Your task to perform on an android device: Open maps Image 0: 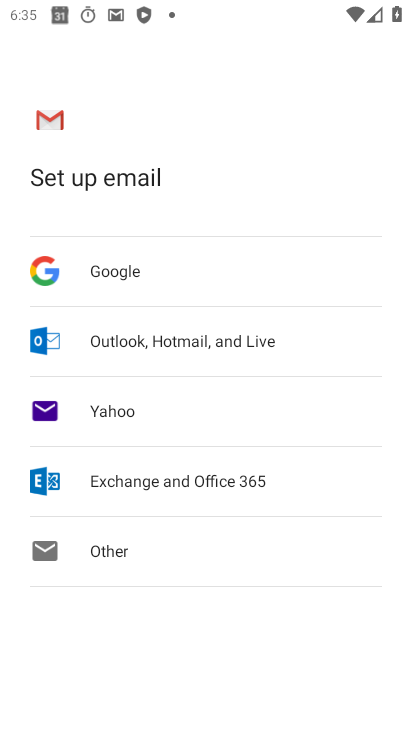
Step 0: press home button
Your task to perform on an android device: Open maps Image 1: 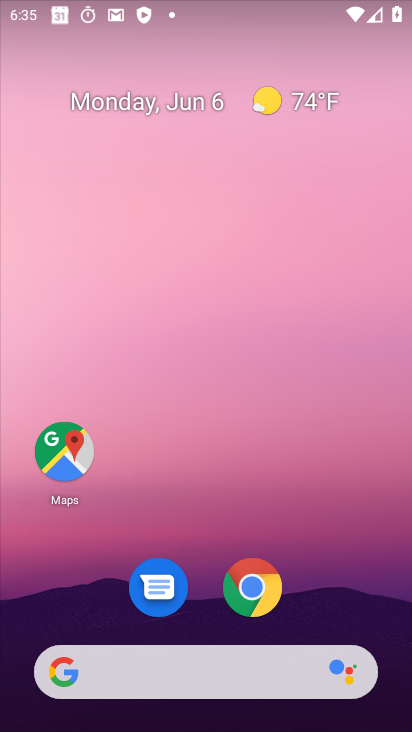
Step 1: drag from (386, 644) to (265, 34)
Your task to perform on an android device: Open maps Image 2: 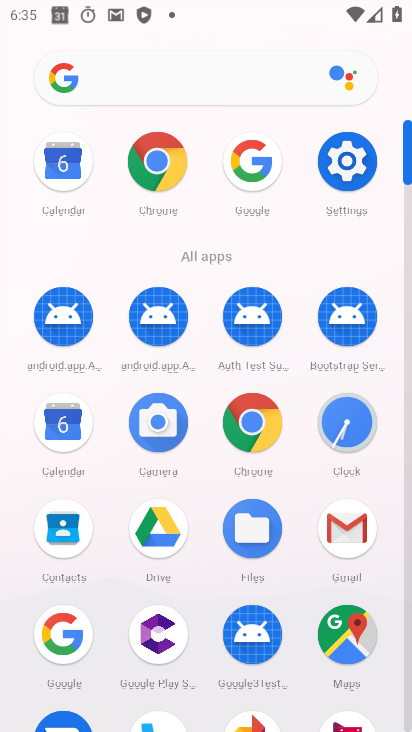
Step 2: click (340, 632)
Your task to perform on an android device: Open maps Image 3: 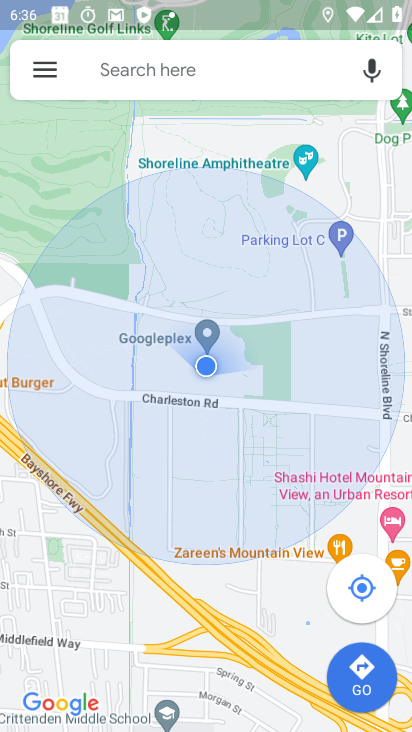
Step 3: task complete